Your task to perform on an android device: see tabs open on other devices in the chrome app Image 0: 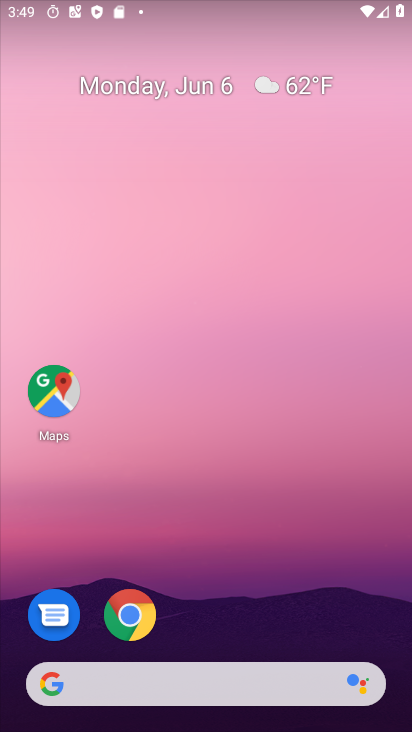
Step 0: drag from (323, 682) to (373, 12)
Your task to perform on an android device: see tabs open on other devices in the chrome app Image 1: 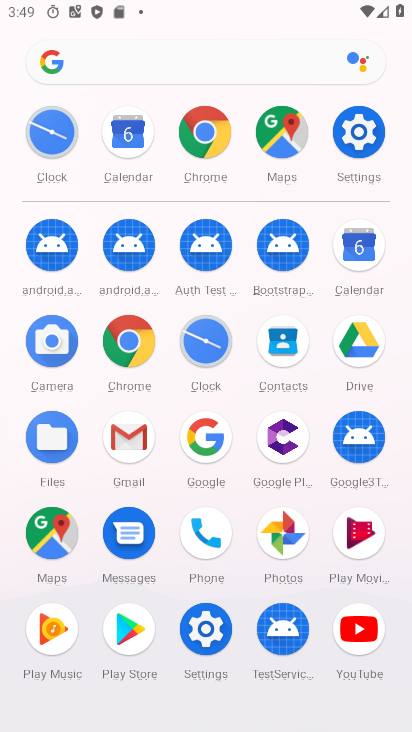
Step 1: click (127, 332)
Your task to perform on an android device: see tabs open on other devices in the chrome app Image 2: 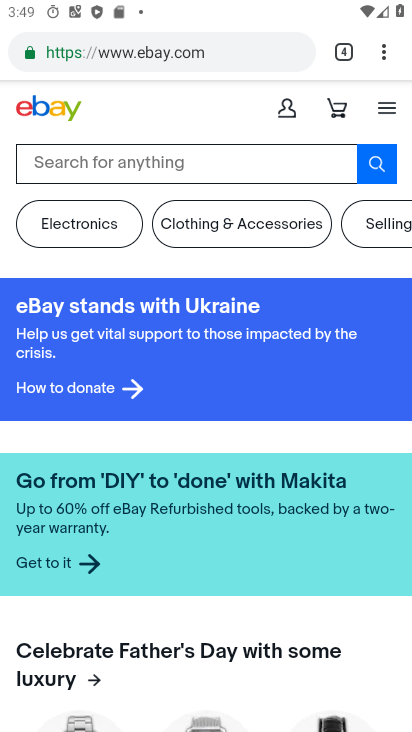
Step 2: click (381, 49)
Your task to perform on an android device: see tabs open on other devices in the chrome app Image 3: 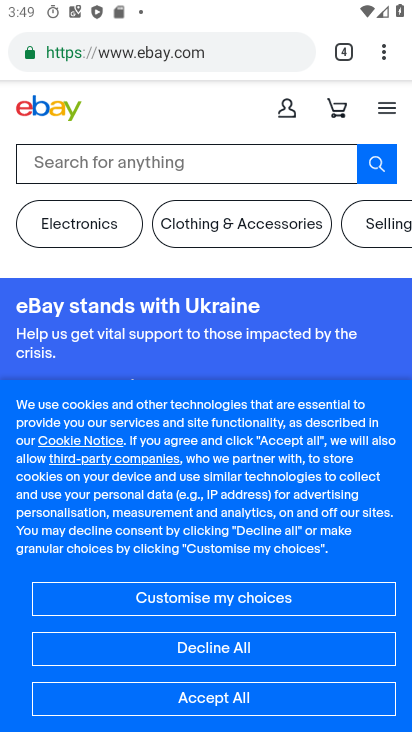
Step 3: drag from (385, 53) to (260, 277)
Your task to perform on an android device: see tabs open on other devices in the chrome app Image 4: 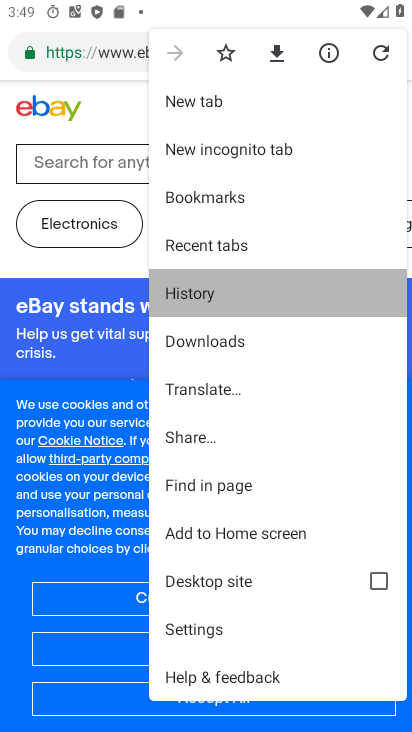
Step 4: click (249, 248)
Your task to perform on an android device: see tabs open on other devices in the chrome app Image 5: 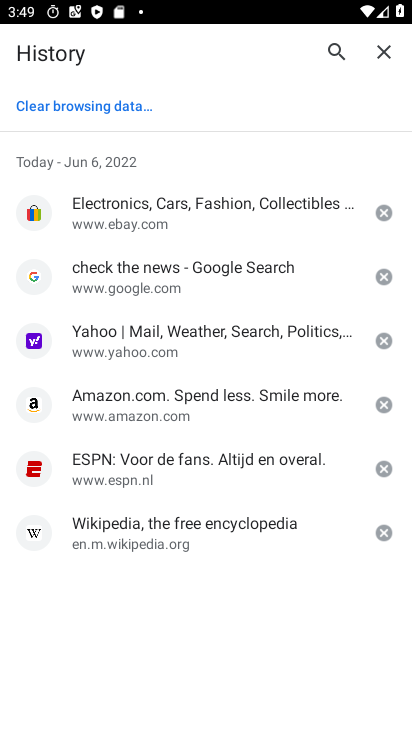
Step 5: task complete